Your task to perform on an android device: View the shopping cart on costco.com. Add logitech g pro to the cart on costco.com, then select checkout. Image 0: 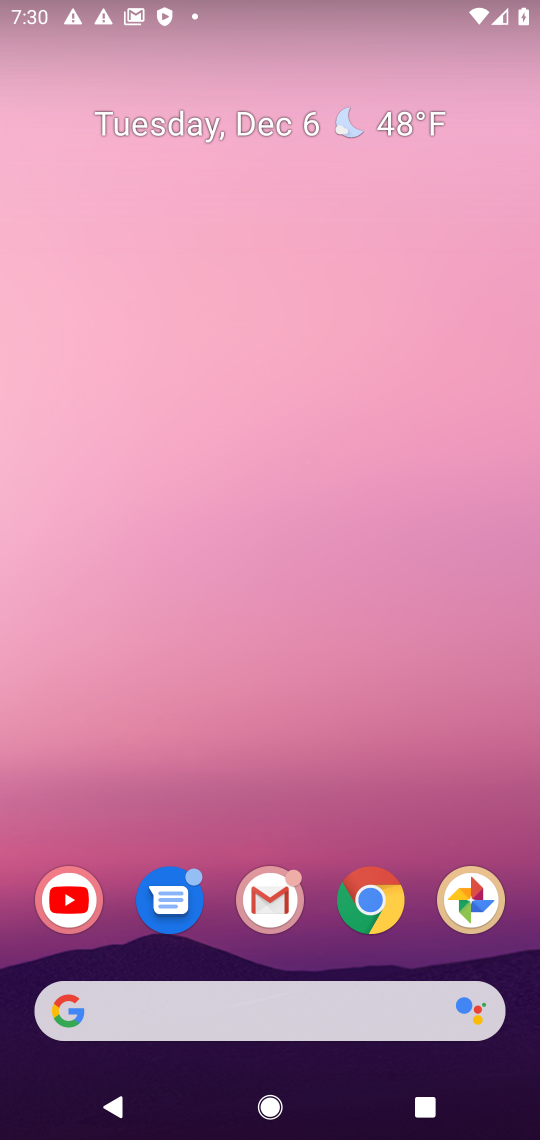
Step 0: drag from (258, 940) to (285, 348)
Your task to perform on an android device: View the shopping cart on costco.com. Add logitech g pro to the cart on costco.com, then select checkout. Image 1: 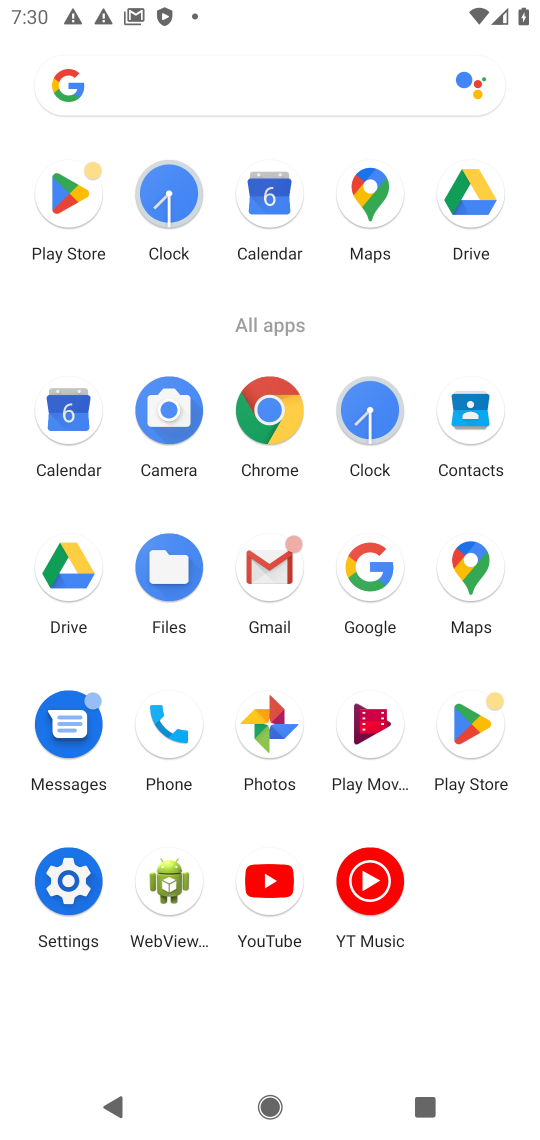
Step 1: click (363, 571)
Your task to perform on an android device: View the shopping cart on costco.com. Add logitech g pro to the cart on costco.com, then select checkout. Image 2: 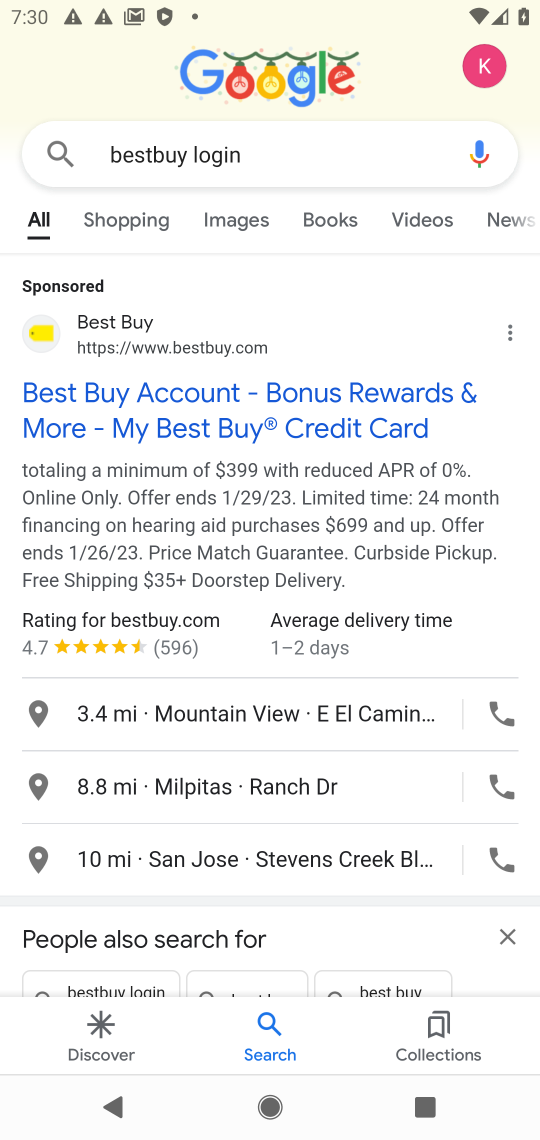
Step 2: click (208, 158)
Your task to perform on an android device: View the shopping cart on costco.com. Add logitech g pro to the cart on costco.com, then select checkout. Image 3: 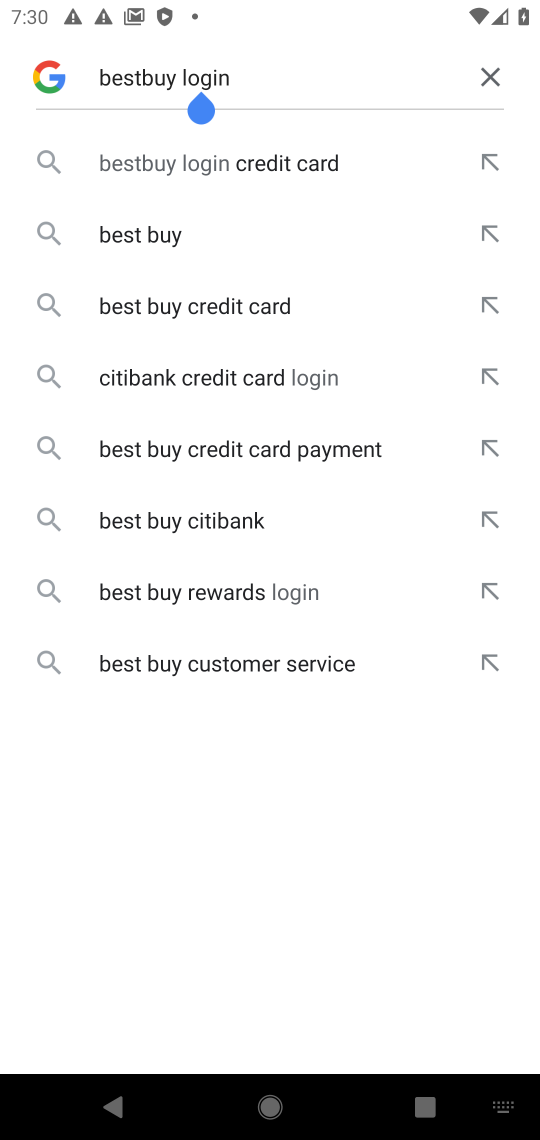
Step 3: click (482, 80)
Your task to perform on an android device: View the shopping cart on costco.com. Add logitech g pro to the cart on costco.com, then select checkout. Image 4: 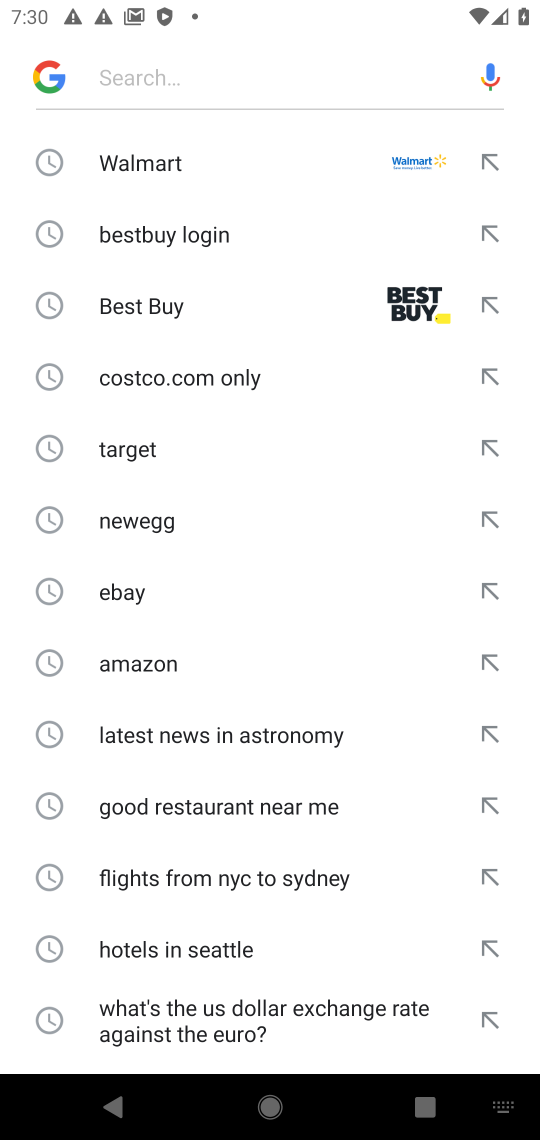
Step 4: type "costco.com"
Your task to perform on an android device: View the shopping cart on costco.com. Add logitech g pro to the cart on costco.com, then select checkout. Image 5: 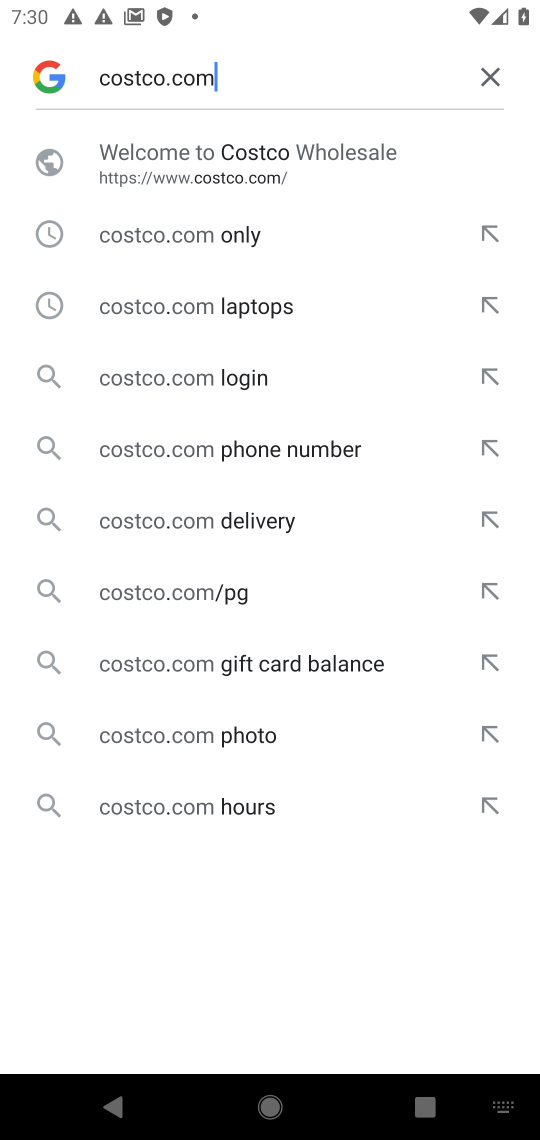
Step 5: click (273, 166)
Your task to perform on an android device: View the shopping cart on costco.com. Add logitech g pro to the cart on costco.com, then select checkout. Image 6: 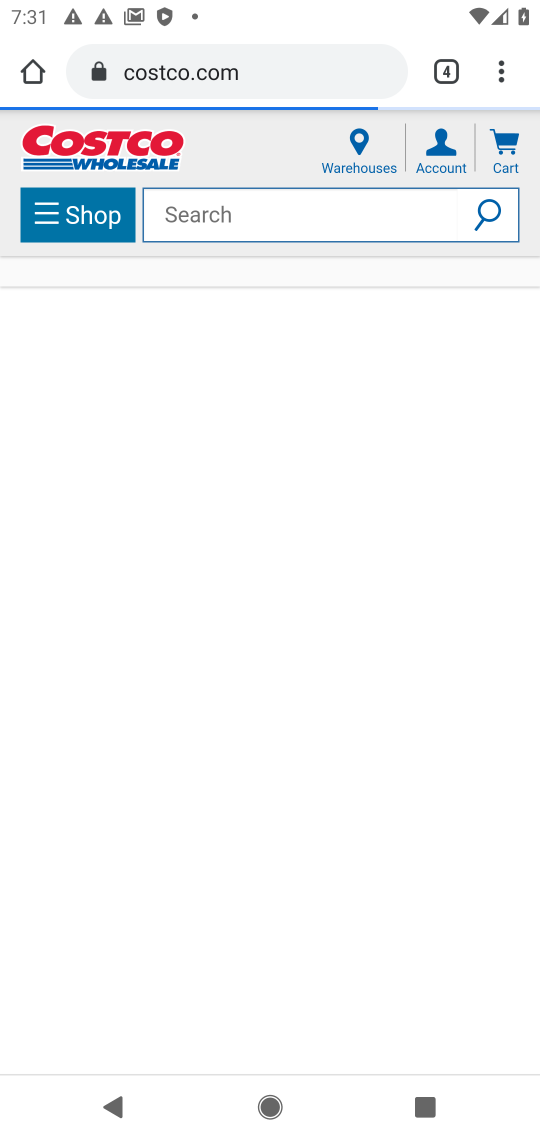
Step 6: click (189, 216)
Your task to perform on an android device: View the shopping cart on costco.com. Add logitech g pro to the cart on costco.com, then select checkout. Image 7: 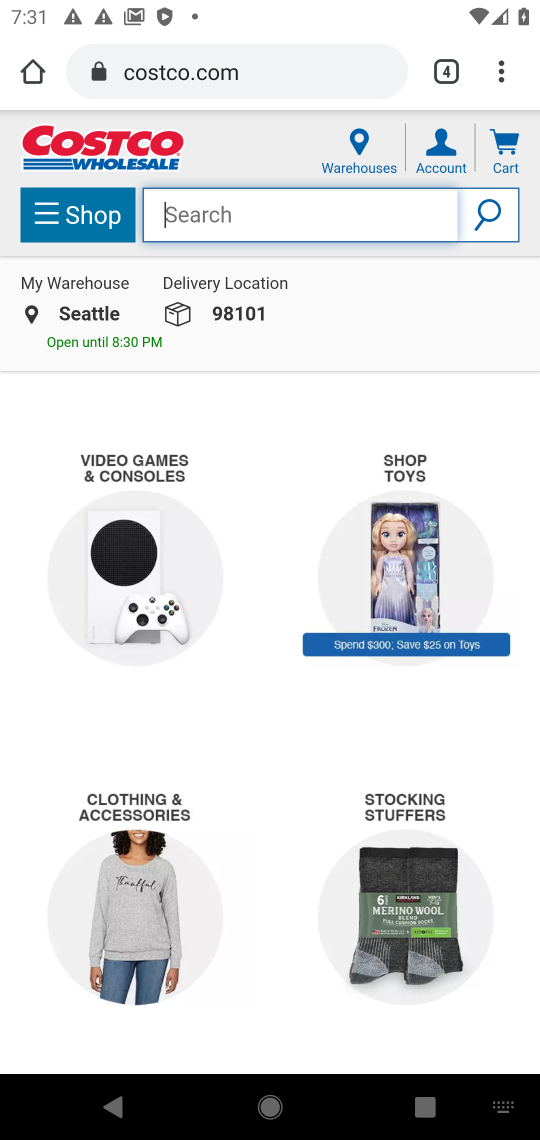
Step 7: type "logitech g"
Your task to perform on an android device: View the shopping cart on costco.com. Add logitech g pro to the cart on costco.com, then select checkout. Image 8: 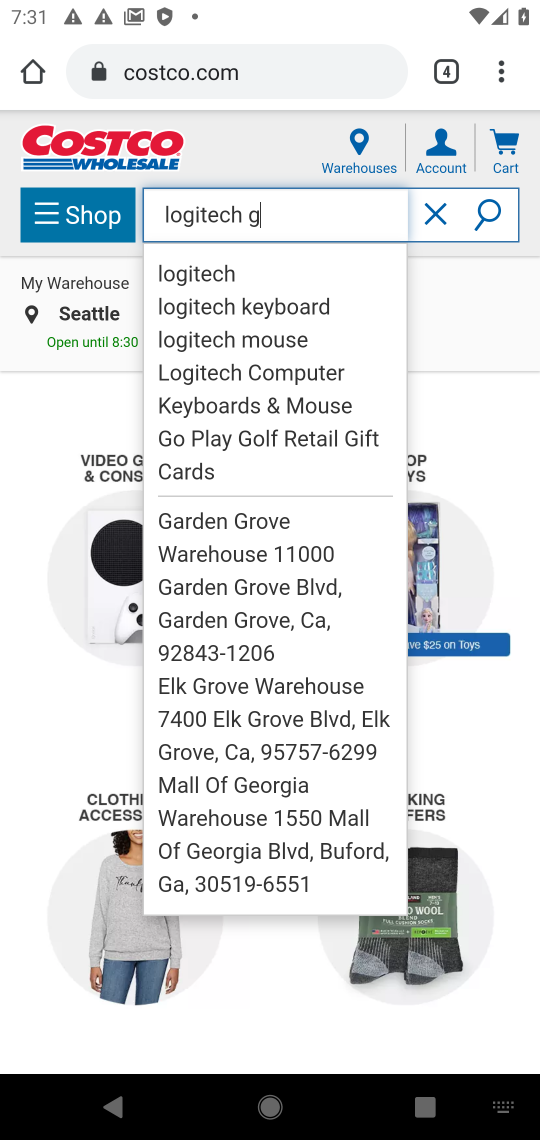
Step 8: click (478, 214)
Your task to perform on an android device: View the shopping cart on costco.com. Add logitech g pro to the cart on costco.com, then select checkout. Image 9: 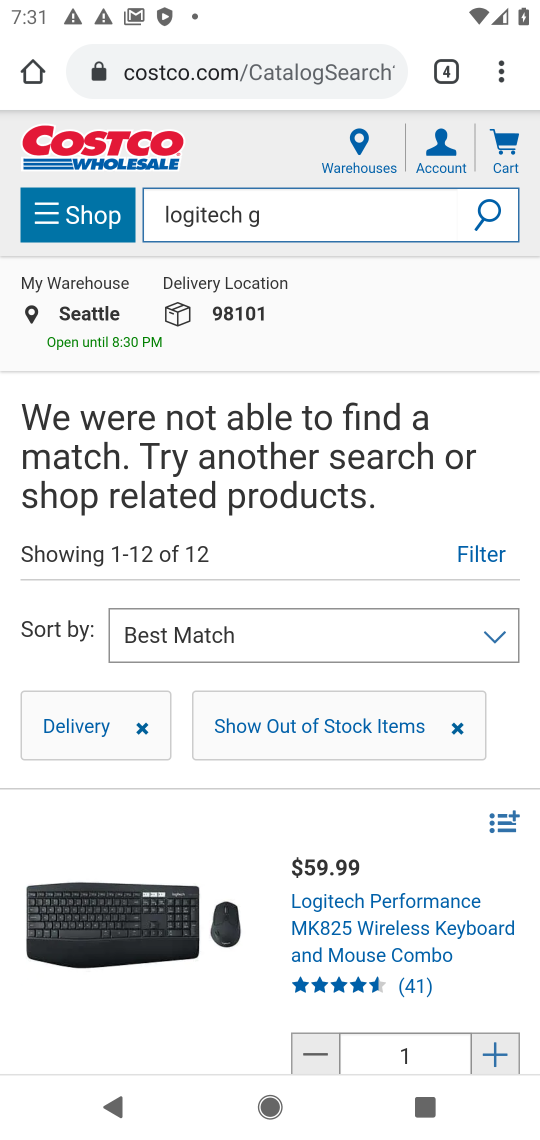
Step 9: drag from (377, 966) to (386, 628)
Your task to perform on an android device: View the shopping cart on costco.com. Add logitech g pro to the cart on costco.com, then select checkout. Image 10: 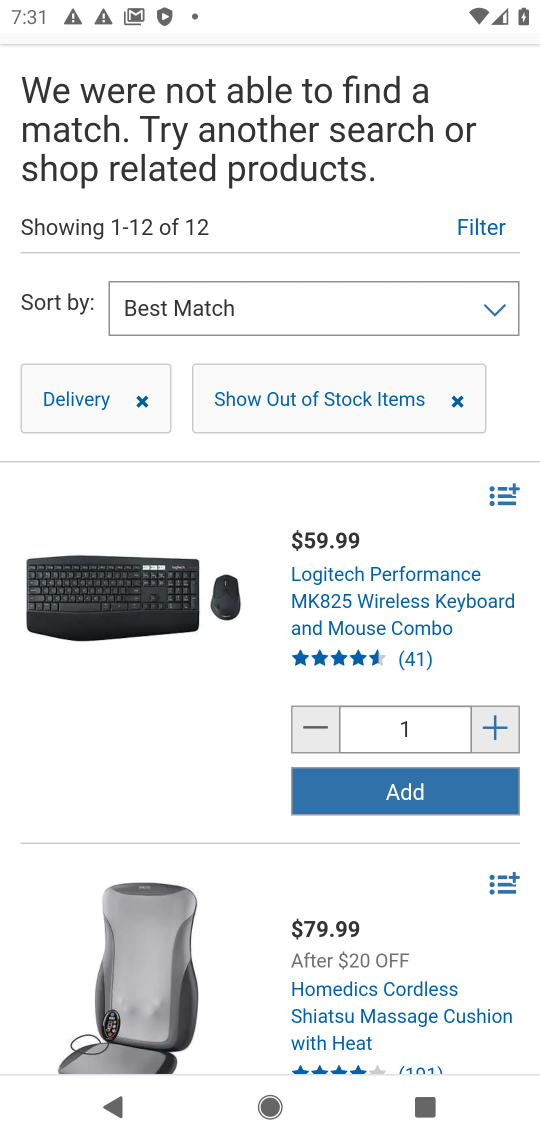
Step 10: click (387, 792)
Your task to perform on an android device: View the shopping cart on costco.com. Add logitech g pro to the cart on costco.com, then select checkout. Image 11: 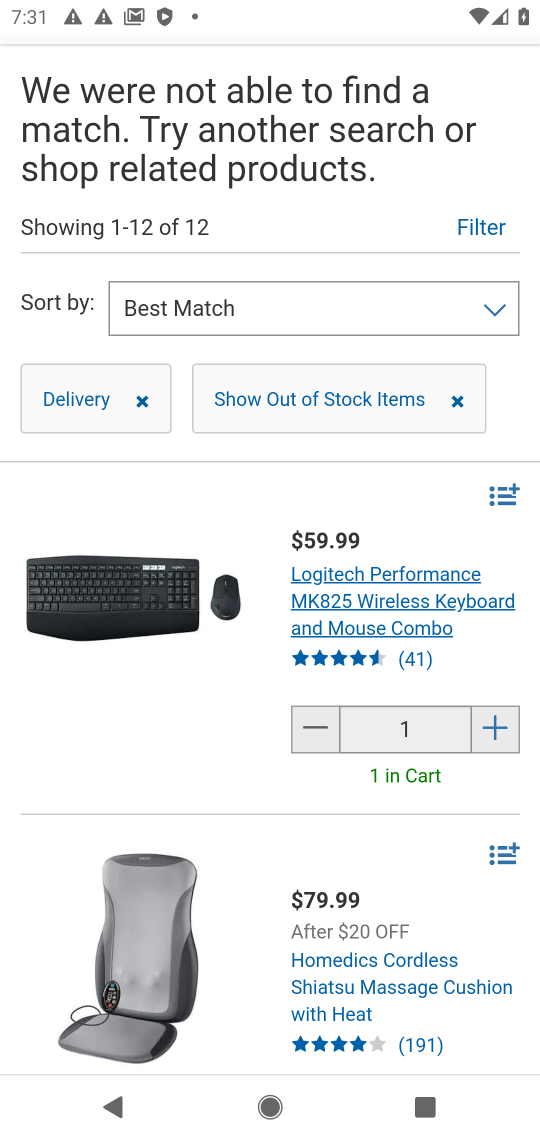
Step 11: drag from (293, 185) to (288, 910)
Your task to perform on an android device: View the shopping cart on costco.com. Add logitech g pro to the cart on costco.com, then select checkout. Image 12: 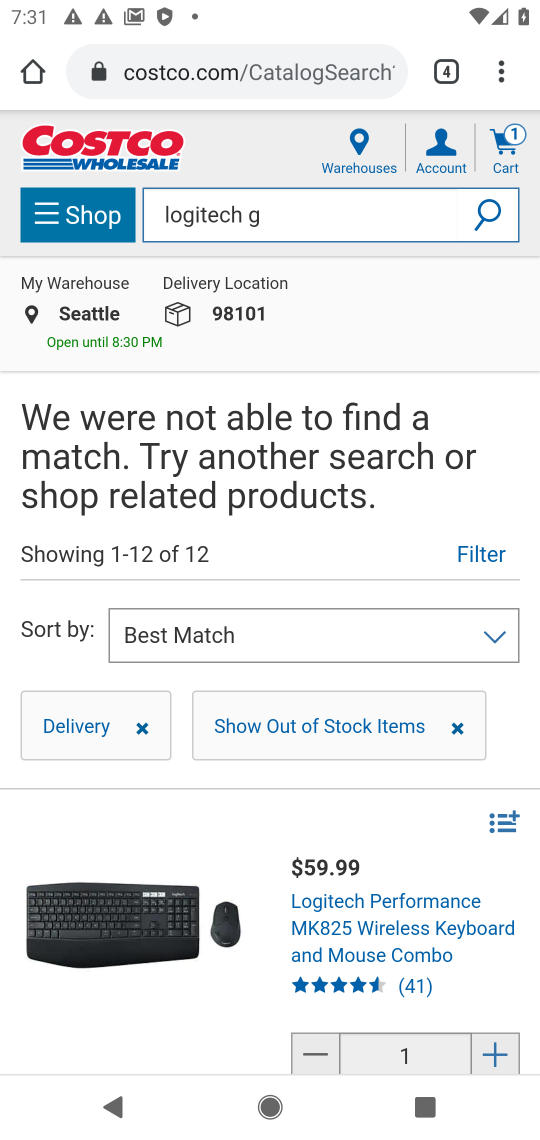
Step 12: click (511, 144)
Your task to perform on an android device: View the shopping cart on costco.com. Add logitech g pro to the cart on costco.com, then select checkout. Image 13: 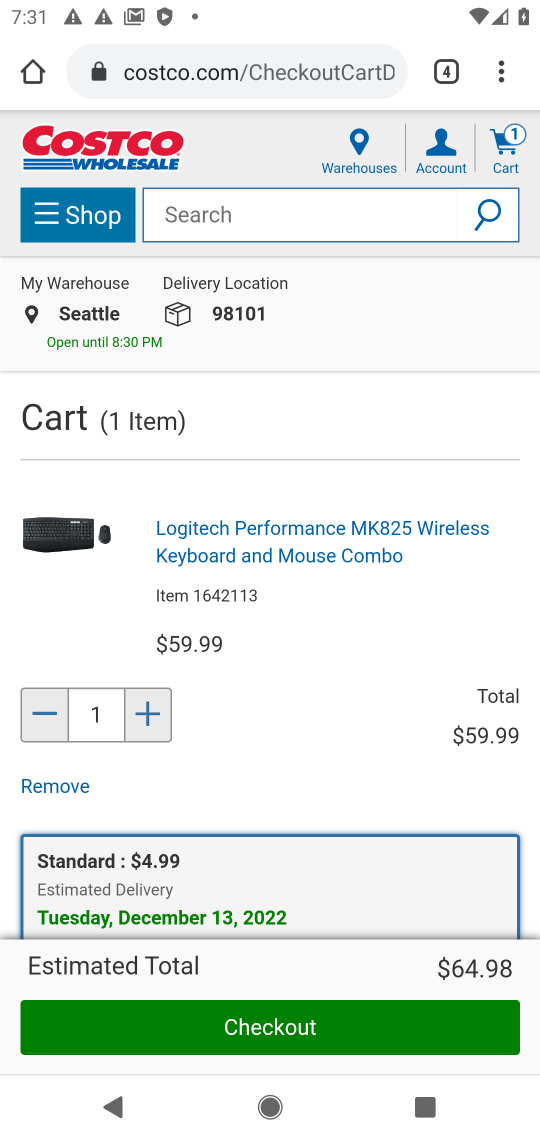
Step 13: click (270, 1033)
Your task to perform on an android device: View the shopping cart on costco.com. Add logitech g pro to the cart on costco.com, then select checkout. Image 14: 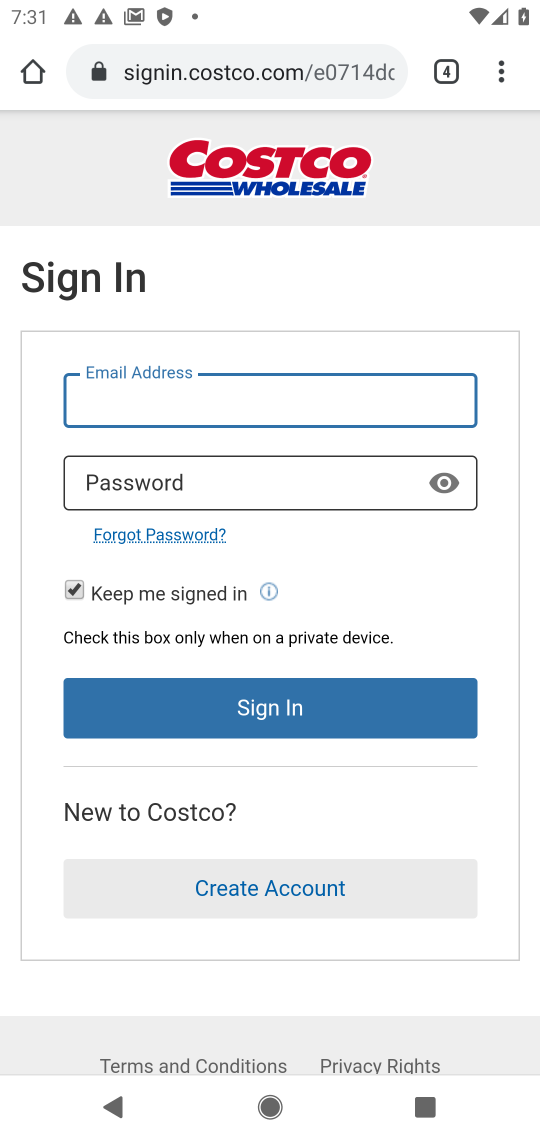
Step 14: task complete